Your task to perform on an android device: Go to sound settings Image 0: 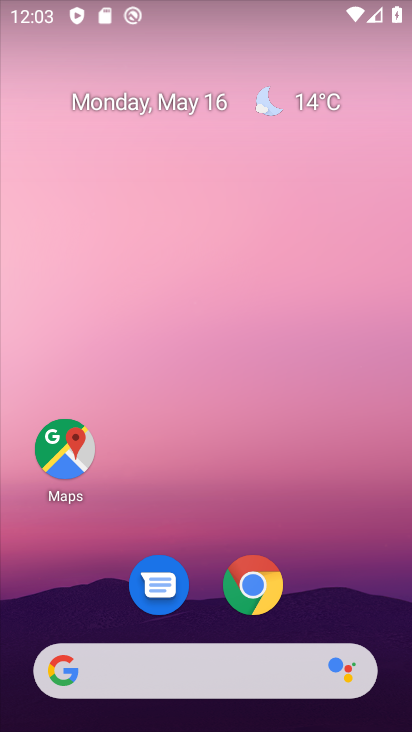
Step 0: drag from (223, 489) to (219, 15)
Your task to perform on an android device: Go to sound settings Image 1: 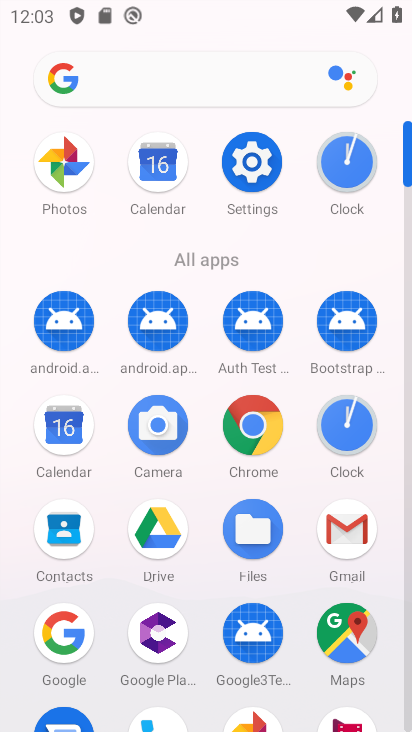
Step 1: click (246, 138)
Your task to perform on an android device: Go to sound settings Image 2: 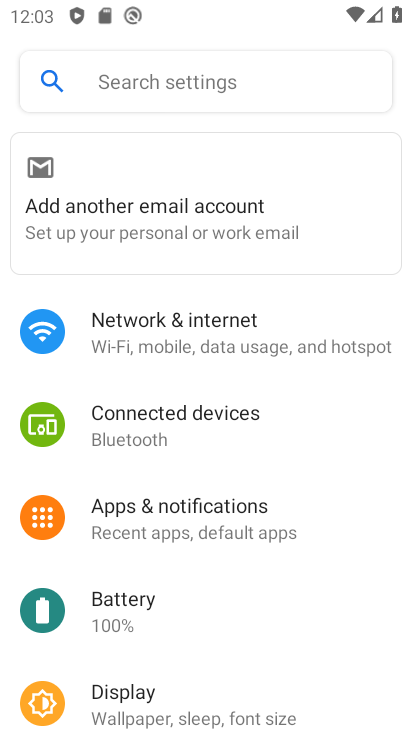
Step 2: drag from (200, 627) to (251, 76)
Your task to perform on an android device: Go to sound settings Image 3: 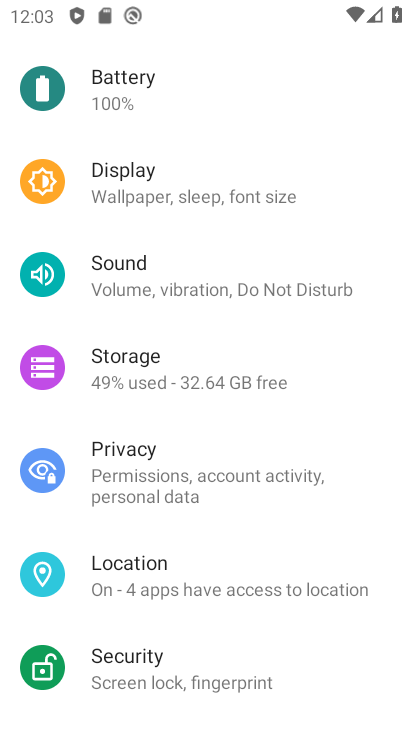
Step 3: click (221, 276)
Your task to perform on an android device: Go to sound settings Image 4: 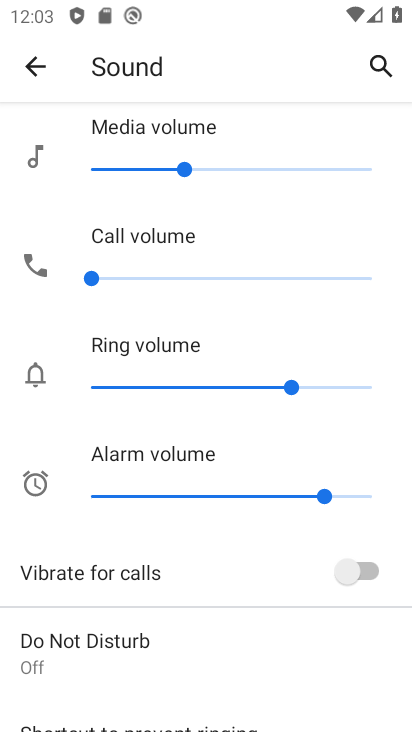
Step 4: task complete